Your task to perform on an android device: Show me the alarms in the clock app Image 0: 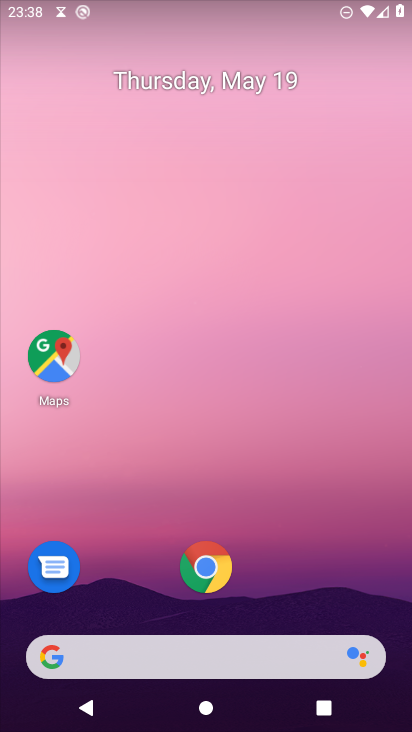
Step 0: drag from (168, 621) to (198, 36)
Your task to perform on an android device: Show me the alarms in the clock app Image 1: 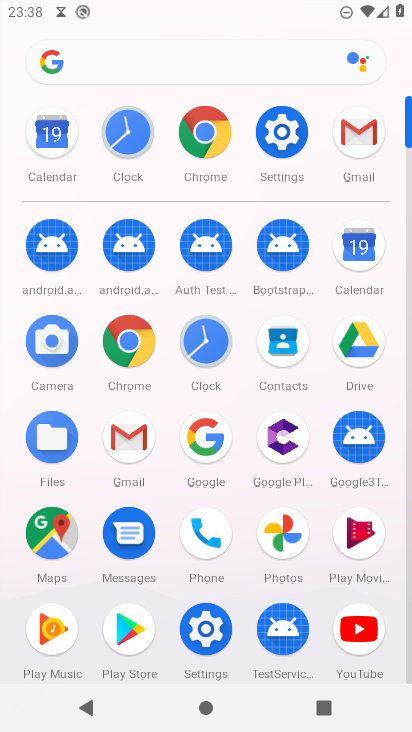
Step 1: click (123, 128)
Your task to perform on an android device: Show me the alarms in the clock app Image 2: 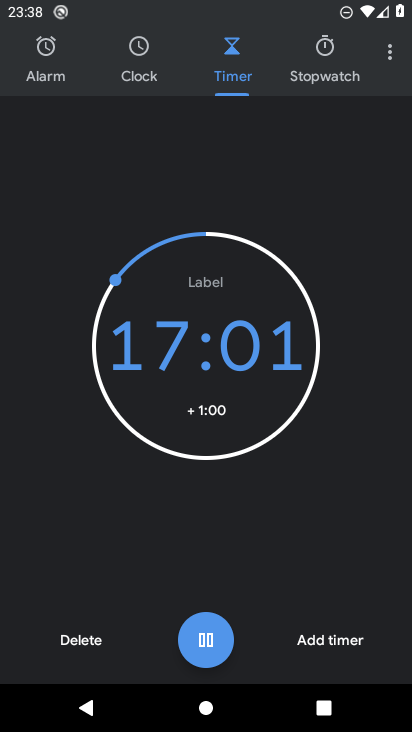
Step 2: click (86, 638)
Your task to perform on an android device: Show me the alarms in the clock app Image 3: 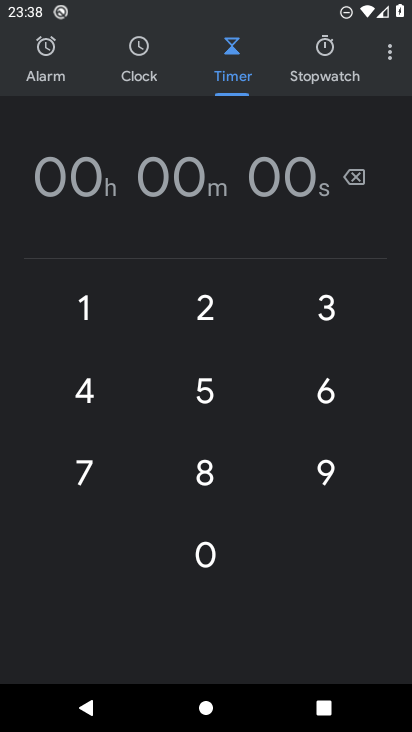
Step 3: click (50, 55)
Your task to perform on an android device: Show me the alarms in the clock app Image 4: 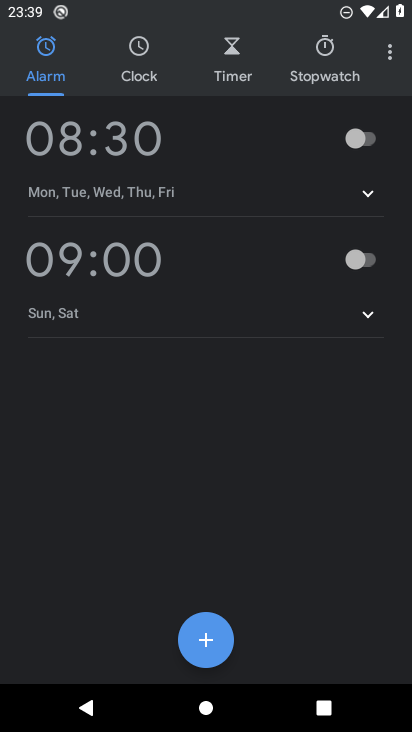
Step 4: task complete